Your task to perform on an android device: Open the map Image 0: 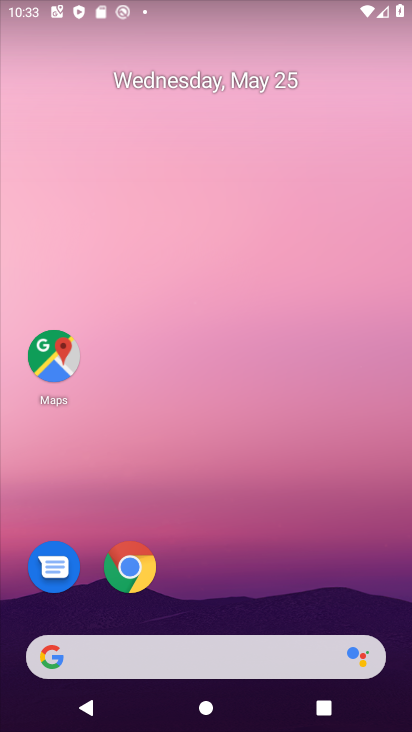
Step 0: drag from (330, 549) to (196, 88)
Your task to perform on an android device: Open the map Image 1: 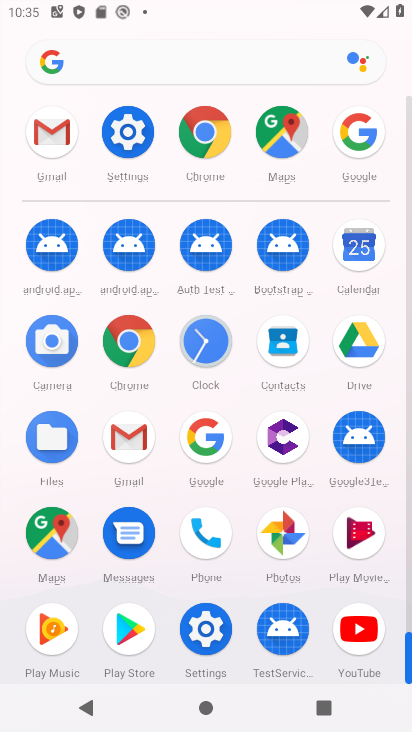
Step 1: click (269, 130)
Your task to perform on an android device: Open the map Image 2: 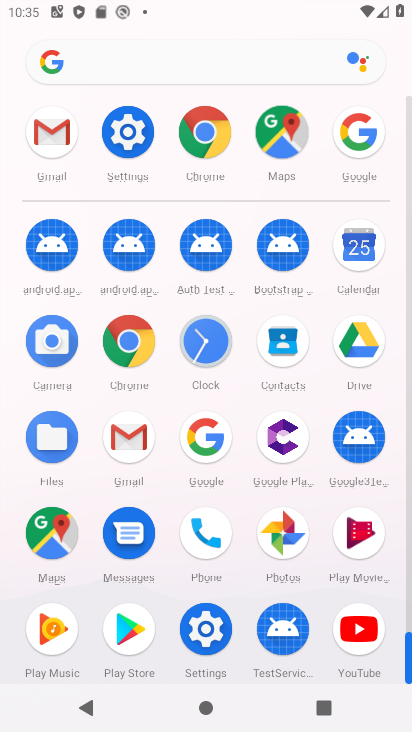
Step 2: click (269, 129)
Your task to perform on an android device: Open the map Image 3: 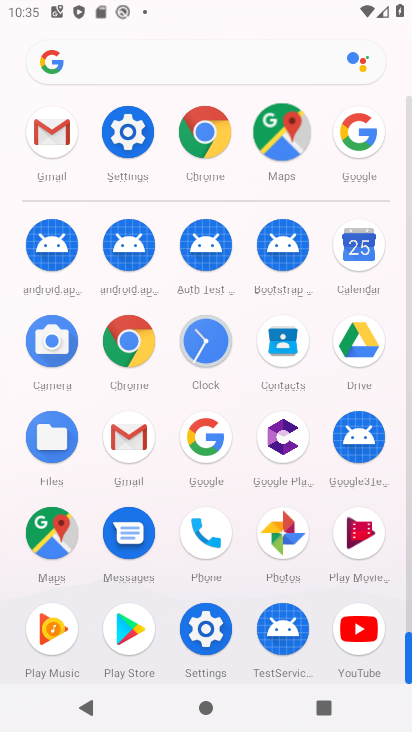
Step 3: click (269, 129)
Your task to perform on an android device: Open the map Image 4: 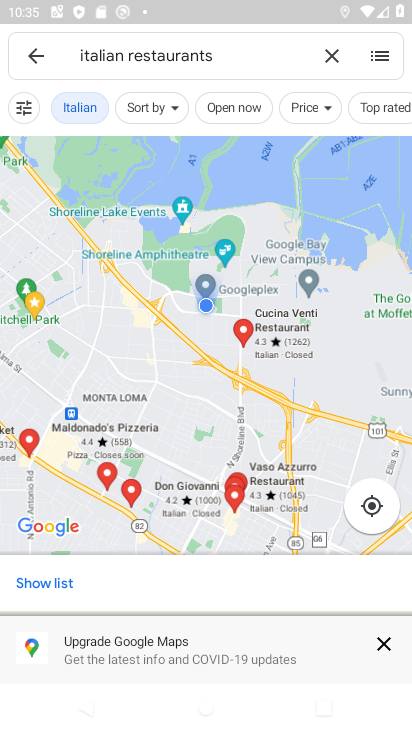
Step 4: task complete